Your task to perform on an android device: Go to Amazon Image 0: 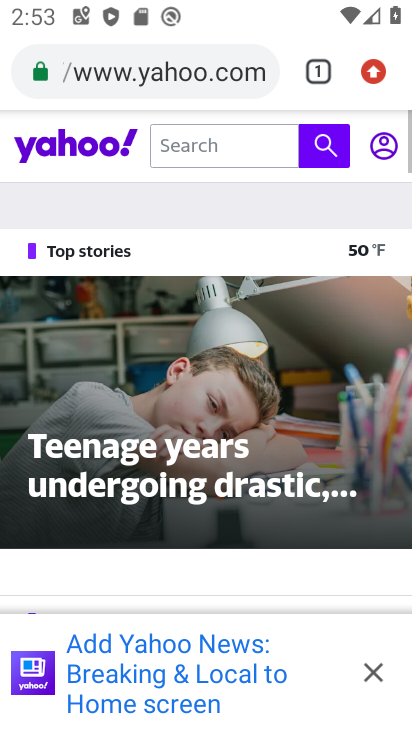
Step 0: press back button
Your task to perform on an android device: Go to Amazon Image 1: 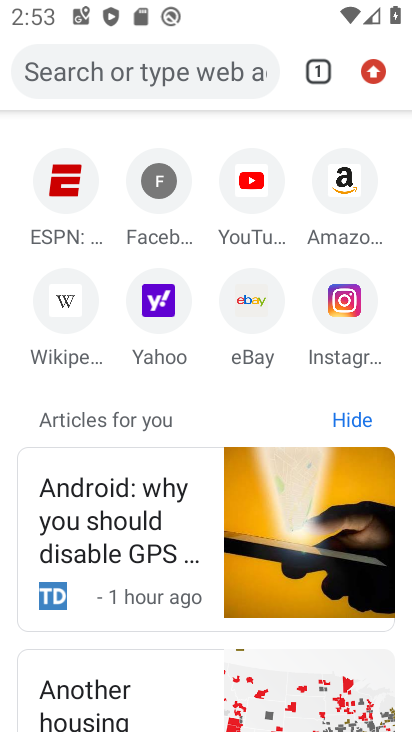
Step 1: click (331, 180)
Your task to perform on an android device: Go to Amazon Image 2: 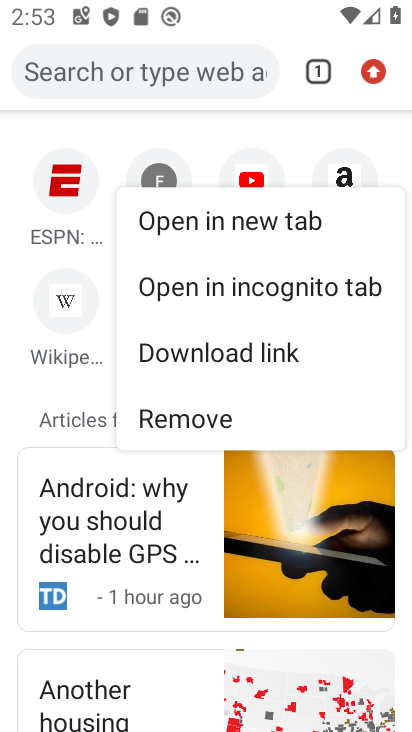
Step 2: click (349, 167)
Your task to perform on an android device: Go to Amazon Image 3: 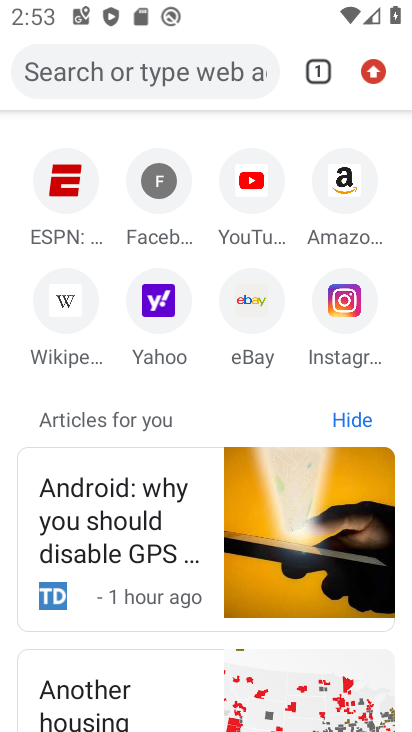
Step 3: click (355, 181)
Your task to perform on an android device: Go to Amazon Image 4: 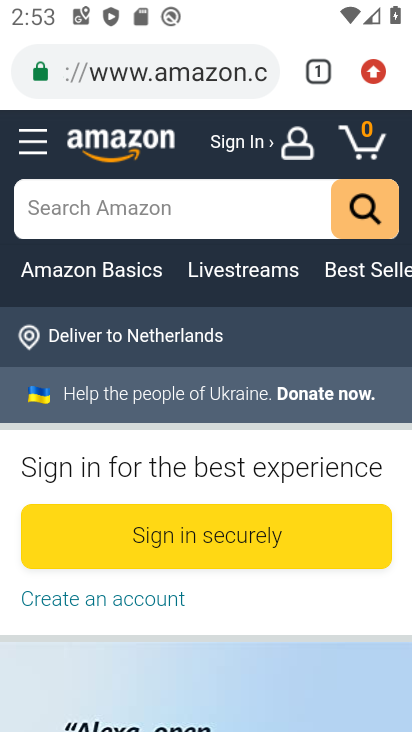
Step 4: task complete